Your task to perform on an android device: find photos in the google photos app Image 0: 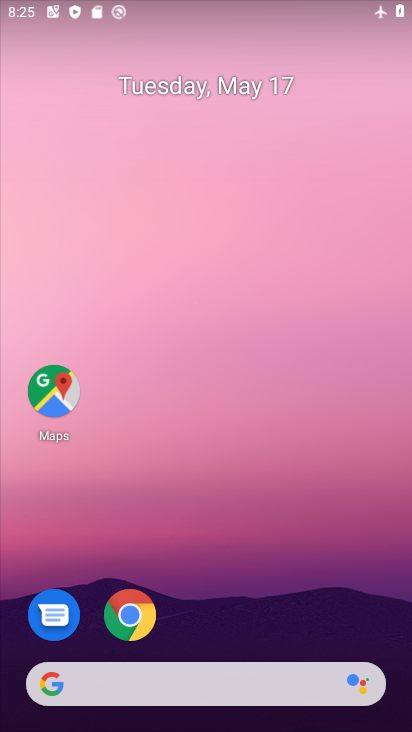
Step 0: drag from (232, 604) to (236, 267)
Your task to perform on an android device: find photos in the google photos app Image 1: 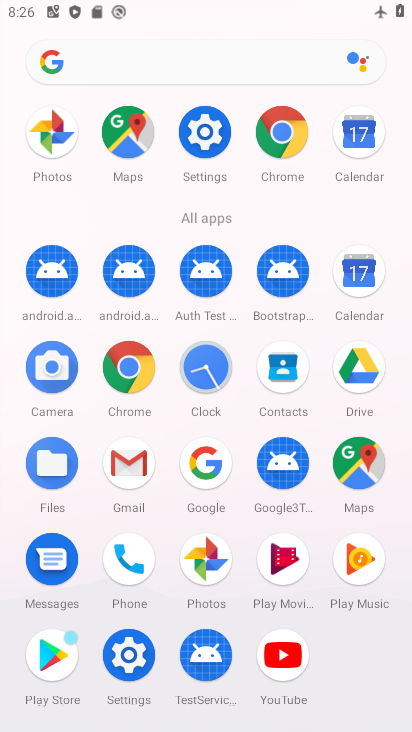
Step 1: click (204, 545)
Your task to perform on an android device: find photos in the google photos app Image 2: 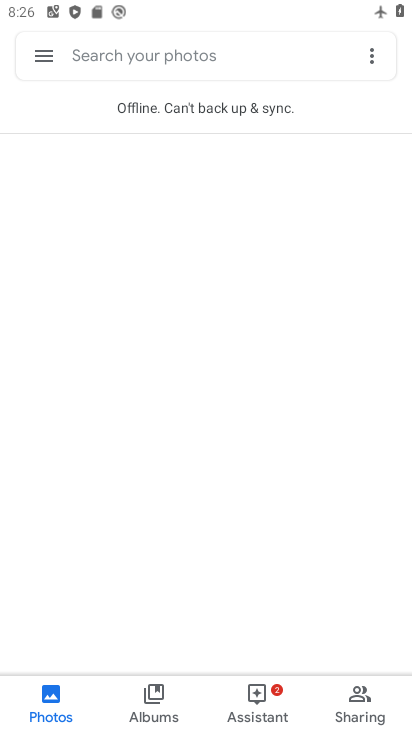
Step 2: click (157, 683)
Your task to perform on an android device: find photos in the google photos app Image 3: 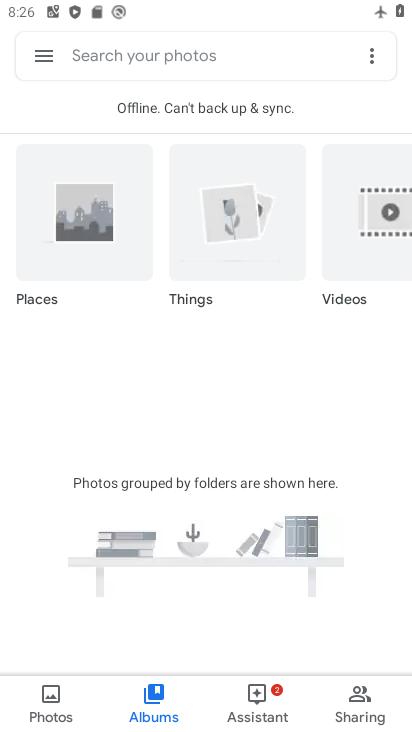
Step 3: click (50, 708)
Your task to perform on an android device: find photos in the google photos app Image 4: 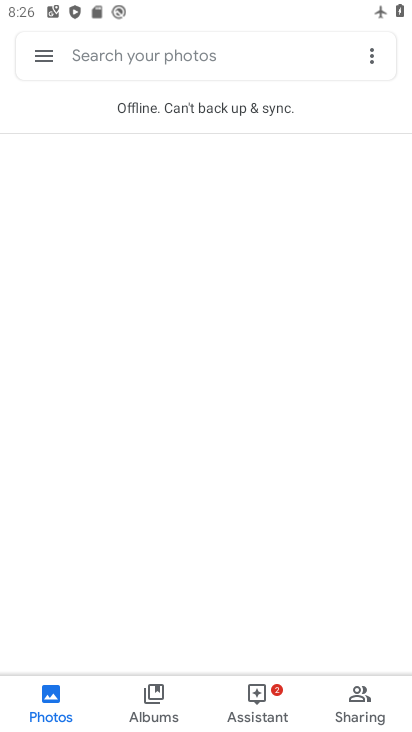
Step 4: click (140, 704)
Your task to perform on an android device: find photos in the google photos app Image 5: 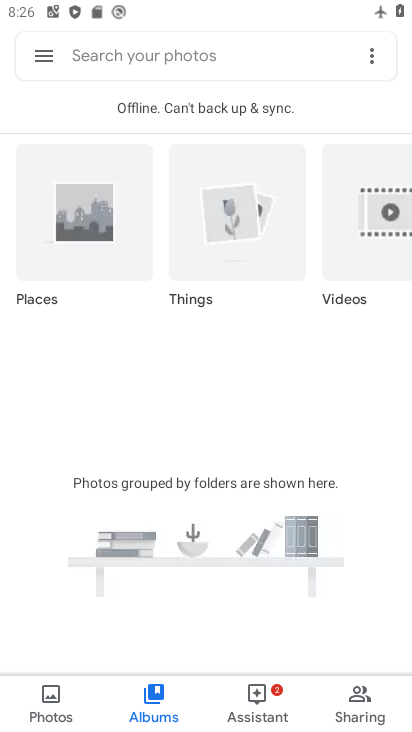
Step 5: task complete